Your task to perform on an android device: check battery use Image 0: 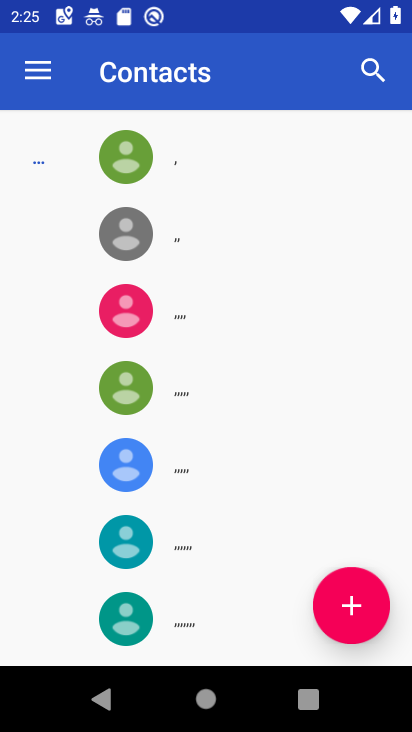
Step 0: press home button
Your task to perform on an android device: check battery use Image 1: 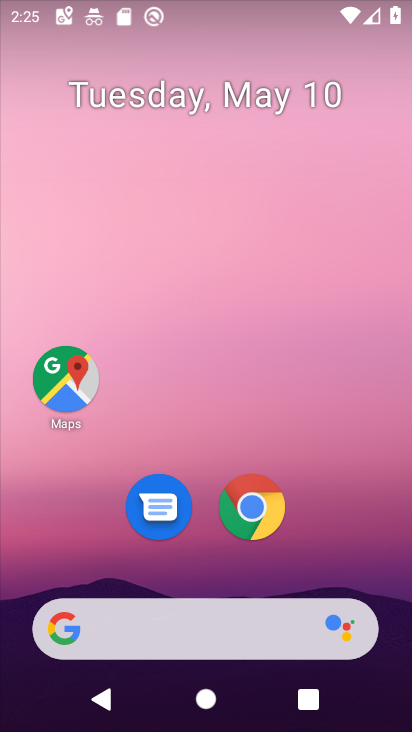
Step 1: drag from (179, 565) to (193, 239)
Your task to perform on an android device: check battery use Image 2: 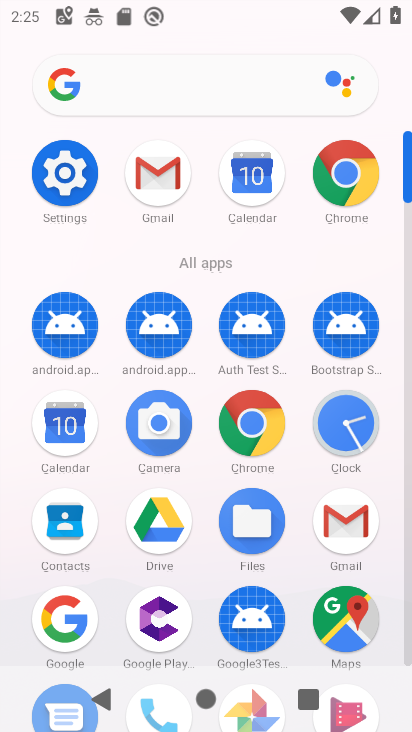
Step 2: click (67, 175)
Your task to perform on an android device: check battery use Image 3: 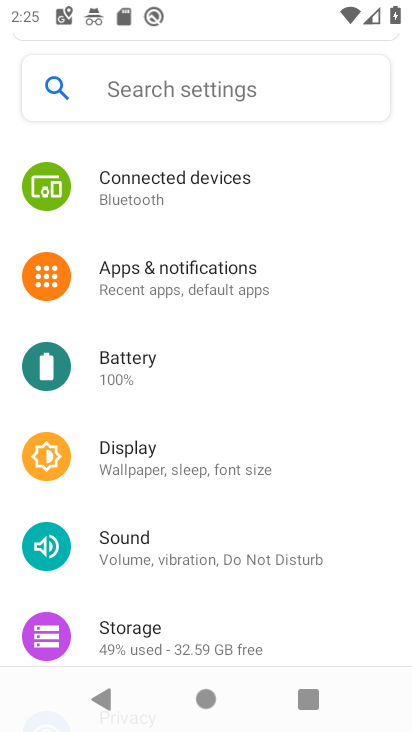
Step 3: click (148, 362)
Your task to perform on an android device: check battery use Image 4: 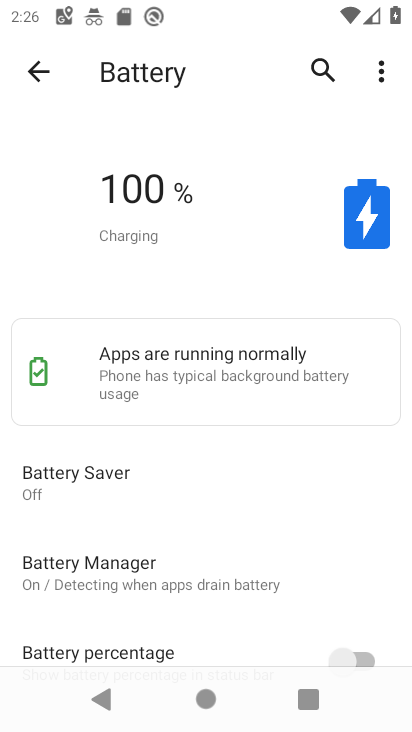
Step 4: task complete